Your task to perform on an android device: Show me the alarms in the clock app Image 0: 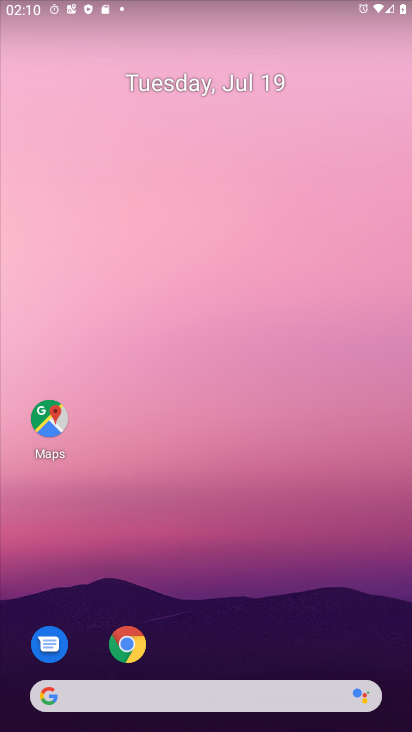
Step 0: drag from (209, 619) to (250, 223)
Your task to perform on an android device: Show me the alarms in the clock app Image 1: 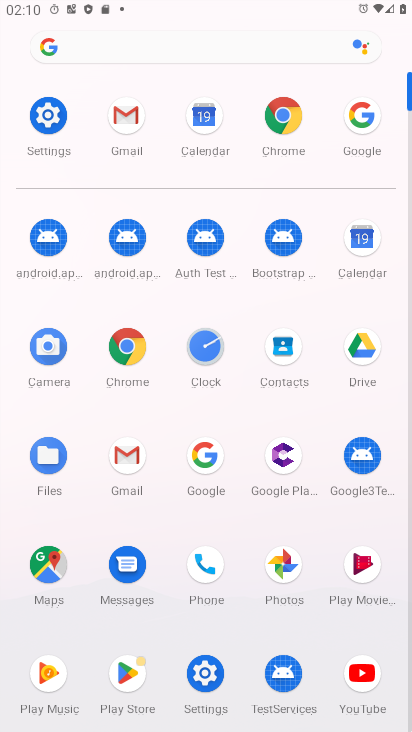
Step 1: click (204, 355)
Your task to perform on an android device: Show me the alarms in the clock app Image 2: 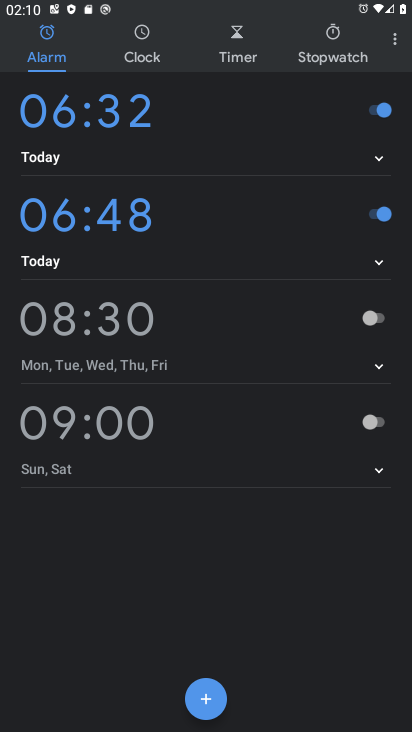
Step 2: task complete